Your task to perform on an android device: read, delete, or share a saved page in the chrome app Image 0: 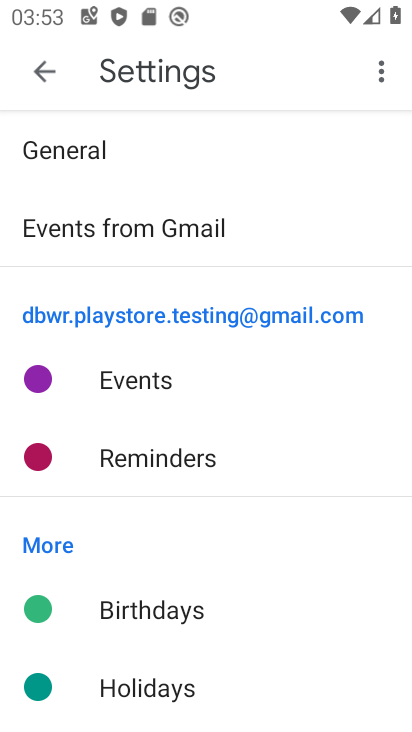
Step 0: press home button
Your task to perform on an android device: read, delete, or share a saved page in the chrome app Image 1: 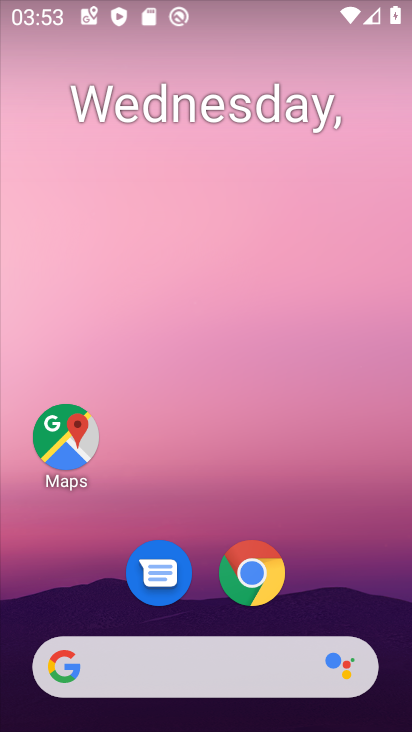
Step 1: drag from (348, 590) to (336, 111)
Your task to perform on an android device: read, delete, or share a saved page in the chrome app Image 2: 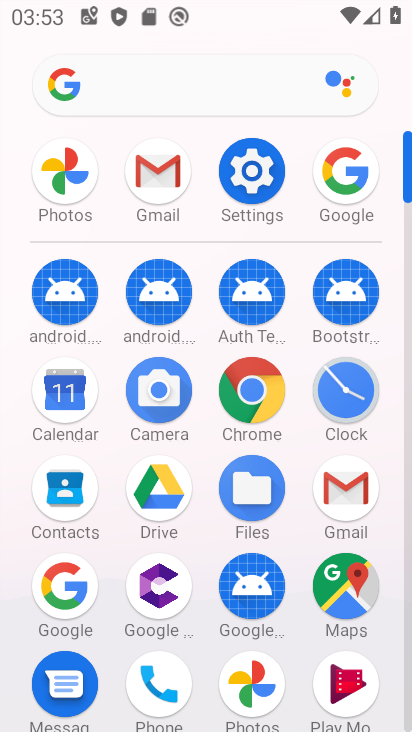
Step 2: click (253, 388)
Your task to perform on an android device: read, delete, or share a saved page in the chrome app Image 3: 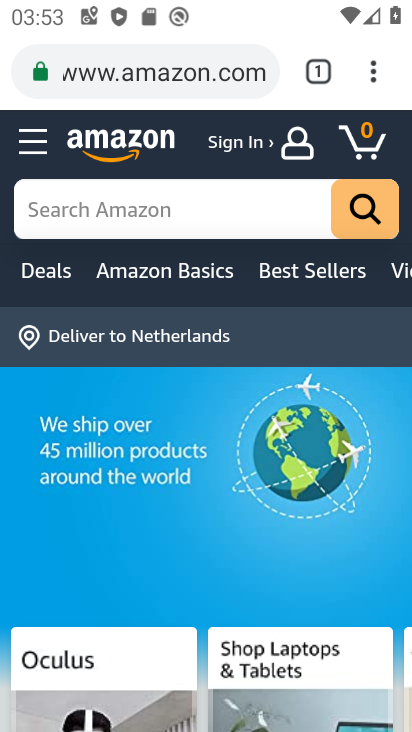
Step 3: click (373, 70)
Your task to perform on an android device: read, delete, or share a saved page in the chrome app Image 4: 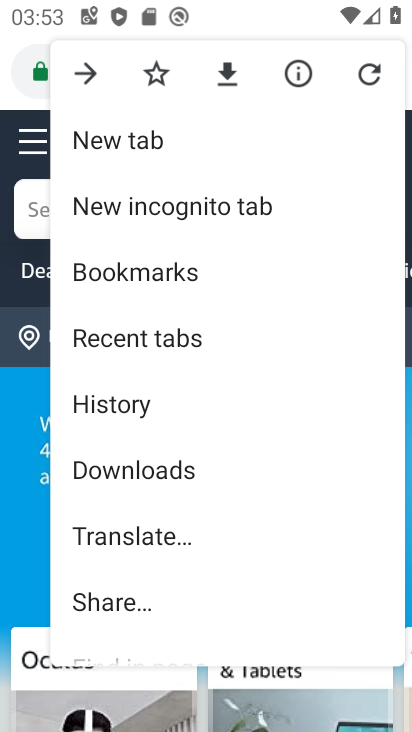
Step 4: click (107, 470)
Your task to perform on an android device: read, delete, or share a saved page in the chrome app Image 5: 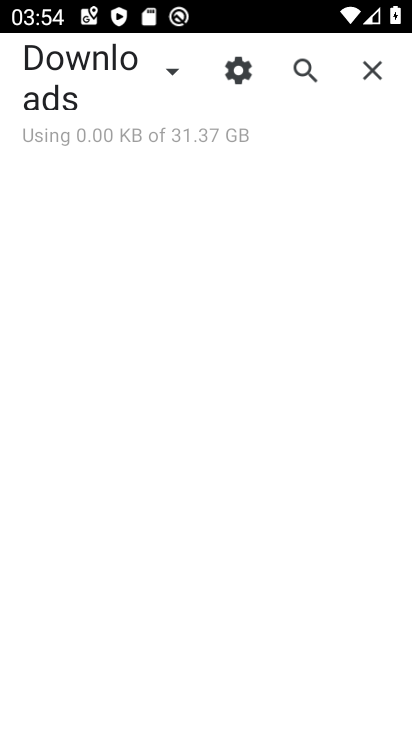
Step 5: task complete